Your task to perform on an android device: Open the web browser Image 0: 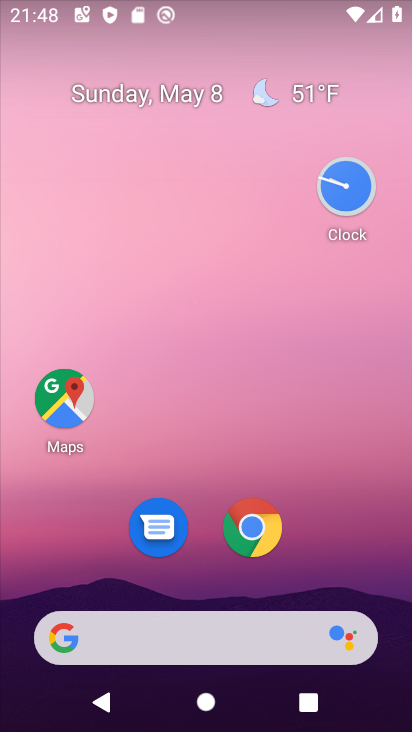
Step 0: drag from (193, 677) to (362, 425)
Your task to perform on an android device: Open the web browser Image 1: 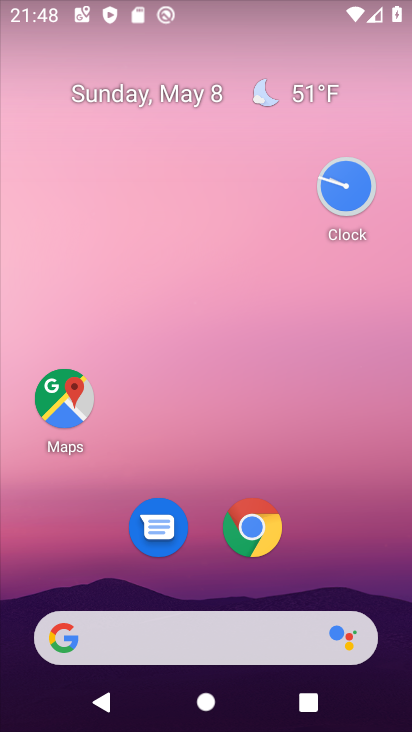
Step 1: click (270, 517)
Your task to perform on an android device: Open the web browser Image 2: 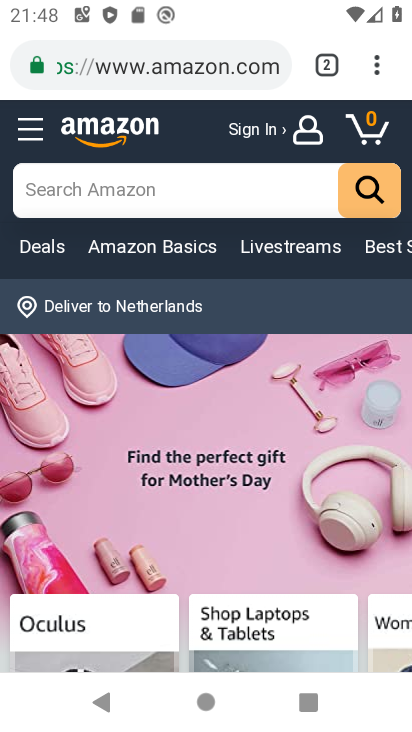
Step 2: task complete